Your task to perform on an android device: toggle notification dots Image 0: 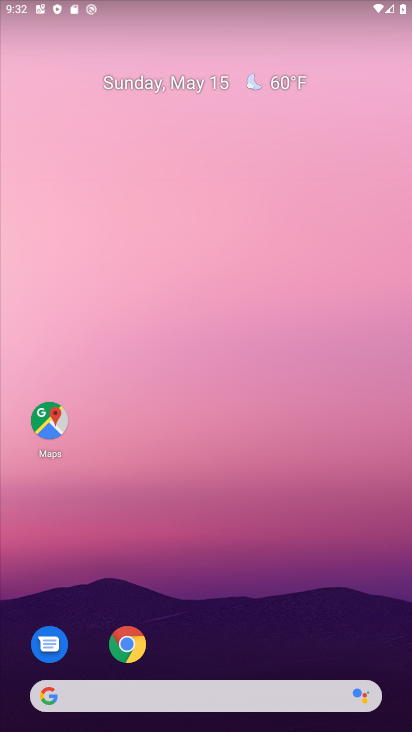
Step 0: drag from (211, 689) to (252, 292)
Your task to perform on an android device: toggle notification dots Image 1: 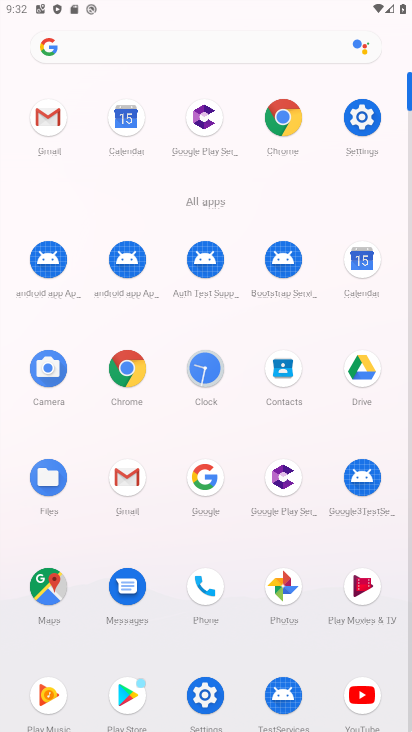
Step 1: click (376, 113)
Your task to perform on an android device: toggle notification dots Image 2: 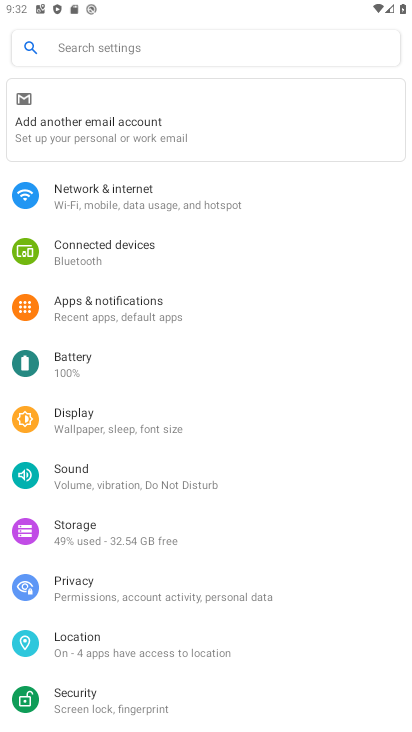
Step 2: click (132, 303)
Your task to perform on an android device: toggle notification dots Image 3: 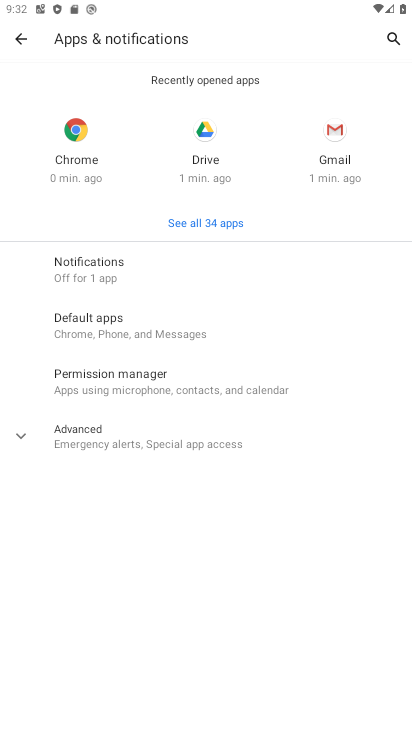
Step 3: click (107, 272)
Your task to perform on an android device: toggle notification dots Image 4: 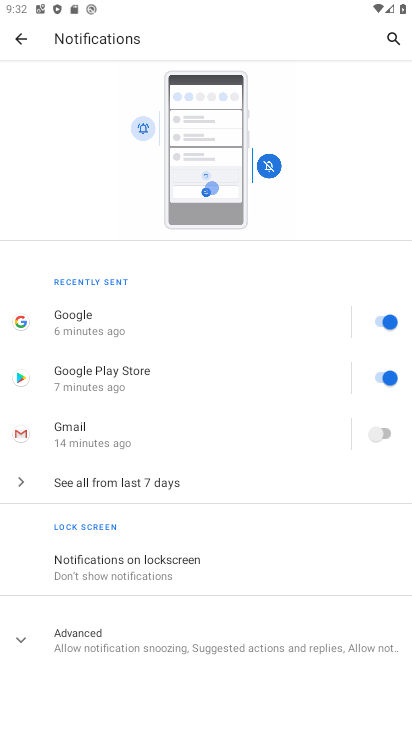
Step 4: click (116, 635)
Your task to perform on an android device: toggle notification dots Image 5: 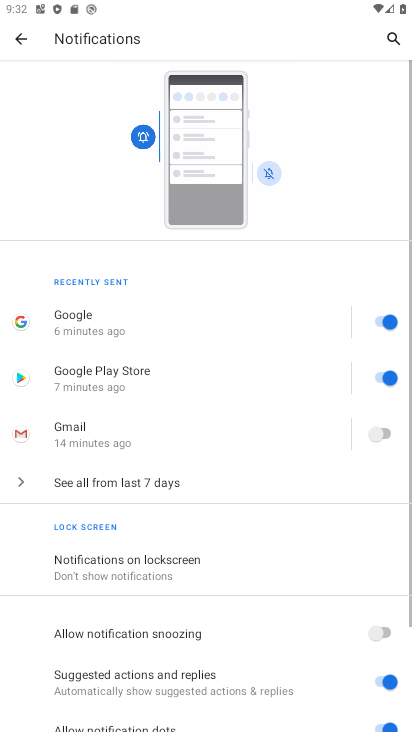
Step 5: drag from (232, 652) to (256, 317)
Your task to perform on an android device: toggle notification dots Image 6: 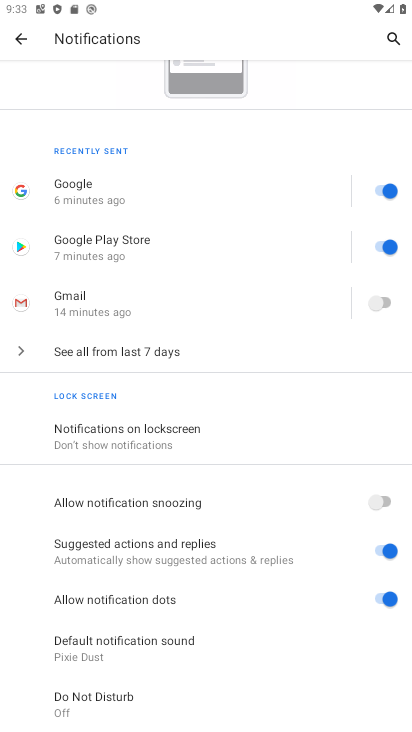
Step 6: click (377, 600)
Your task to perform on an android device: toggle notification dots Image 7: 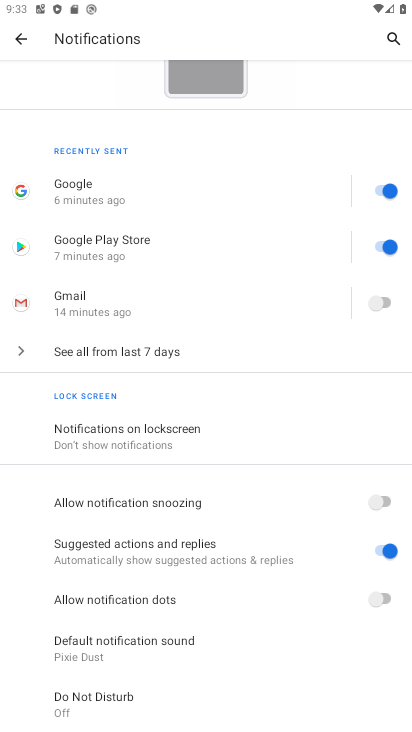
Step 7: task complete